Your task to perform on an android device: change text size in settings app Image 0: 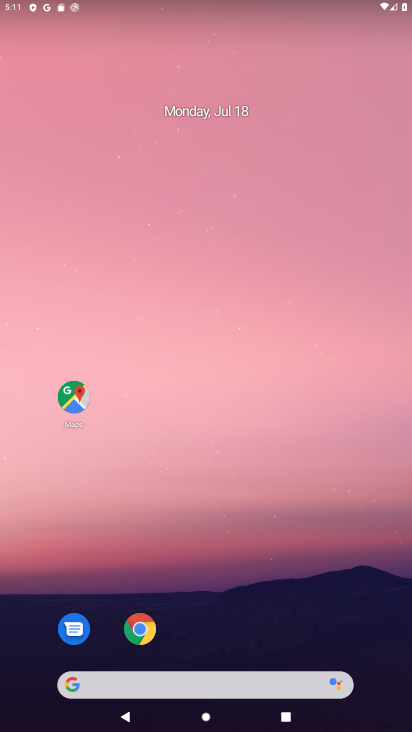
Step 0: drag from (308, 641) to (275, 150)
Your task to perform on an android device: change text size in settings app Image 1: 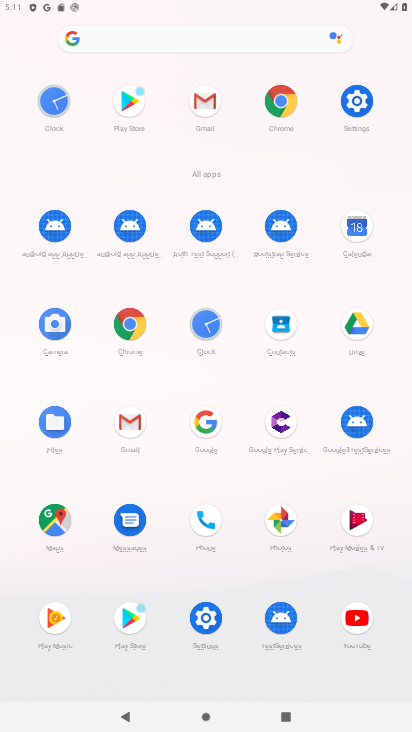
Step 1: click (353, 102)
Your task to perform on an android device: change text size in settings app Image 2: 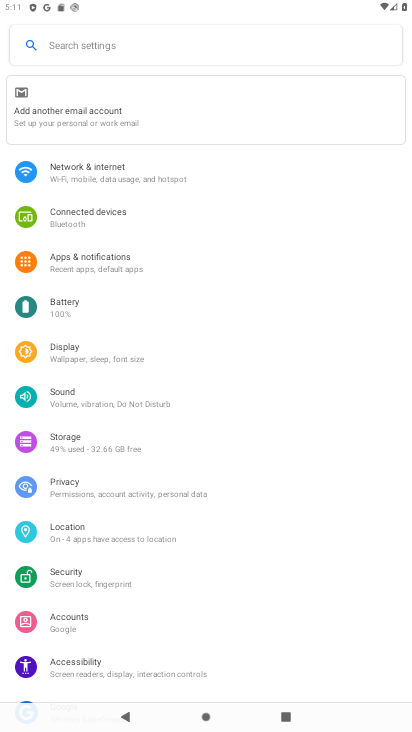
Step 2: click (90, 357)
Your task to perform on an android device: change text size in settings app Image 3: 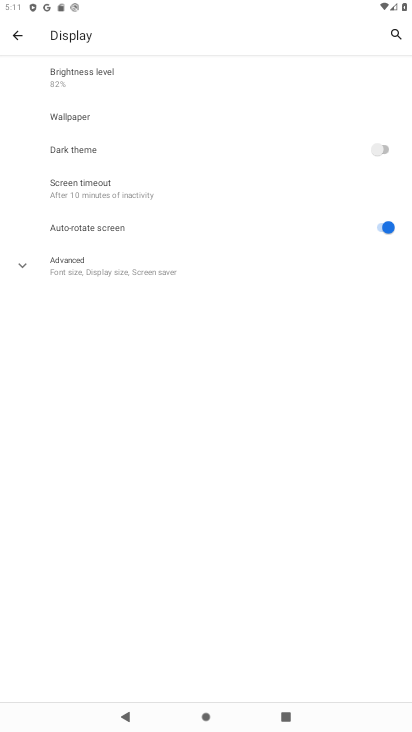
Step 3: click (81, 263)
Your task to perform on an android device: change text size in settings app Image 4: 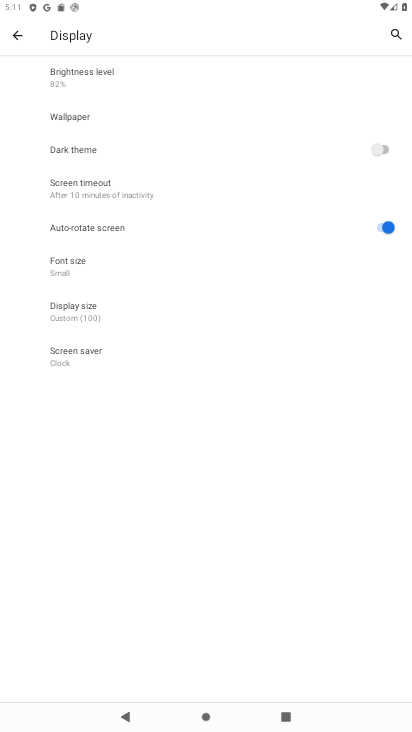
Step 4: click (63, 262)
Your task to perform on an android device: change text size in settings app Image 5: 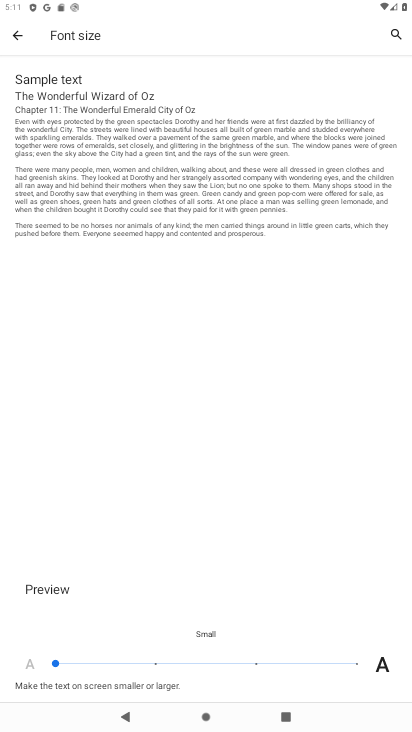
Step 5: click (141, 656)
Your task to perform on an android device: change text size in settings app Image 6: 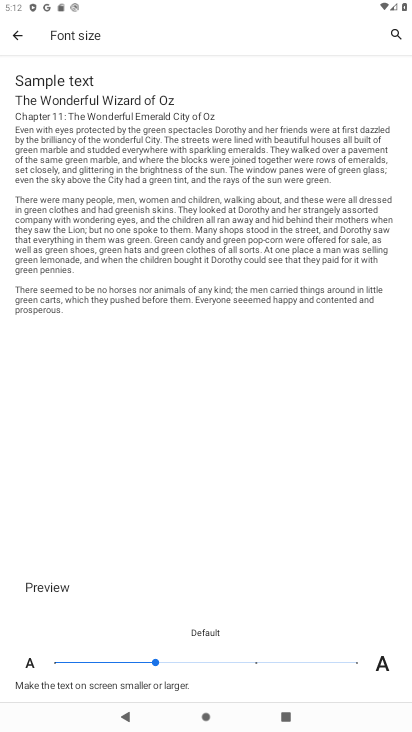
Step 6: task complete